Your task to perform on an android device: Open eBay Image 0: 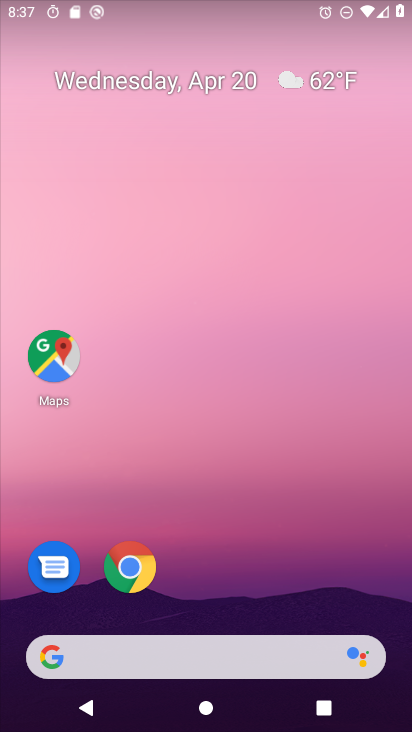
Step 0: click (127, 574)
Your task to perform on an android device: Open eBay Image 1: 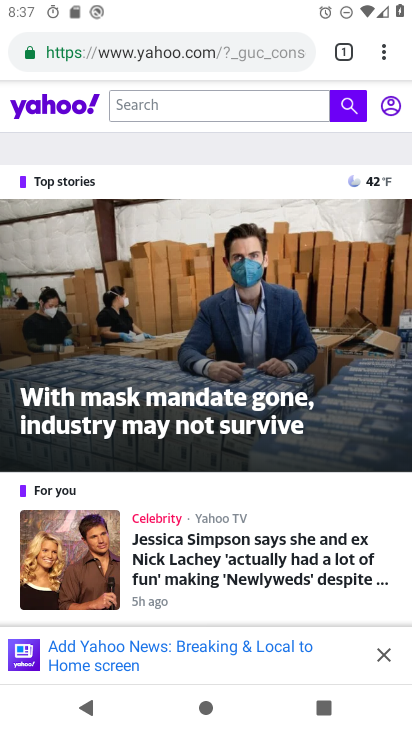
Step 1: click (102, 55)
Your task to perform on an android device: Open eBay Image 2: 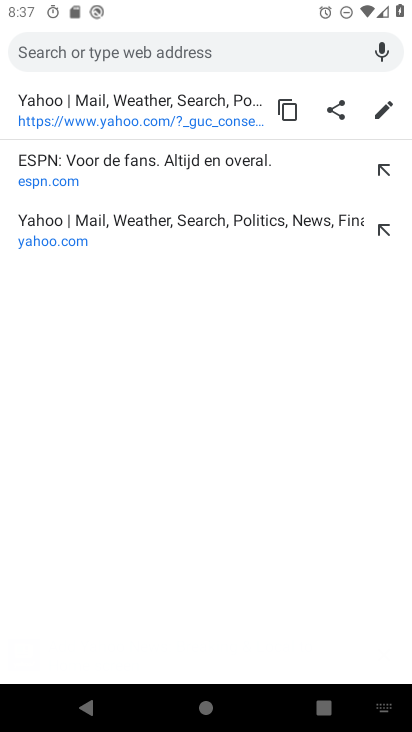
Step 2: type "ebay"
Your task to perform on an android device: Open eBay Image 3: 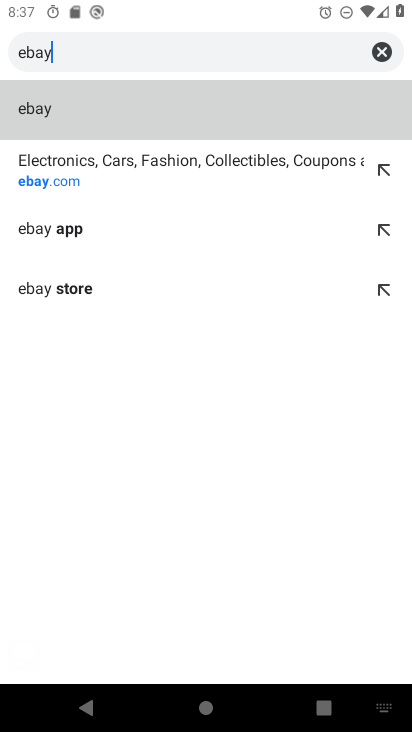
Step 3: click (44, 112)
Your task to perform on an android device: Open eBay Image 4: 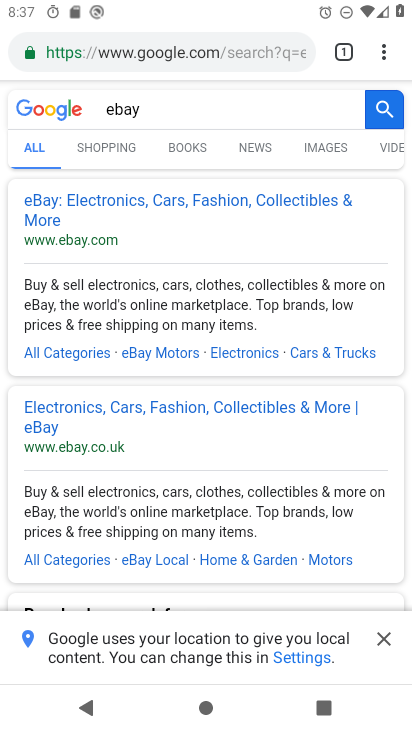
Step 4: click (42, 201)
Your task to perform on an android device: Open eBay Image 5: 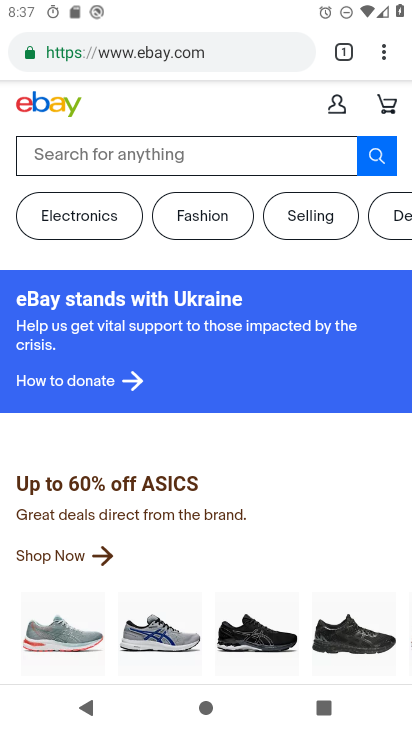
Step 5: task complete